Your task to perform on an android device: Open settings Image 0: 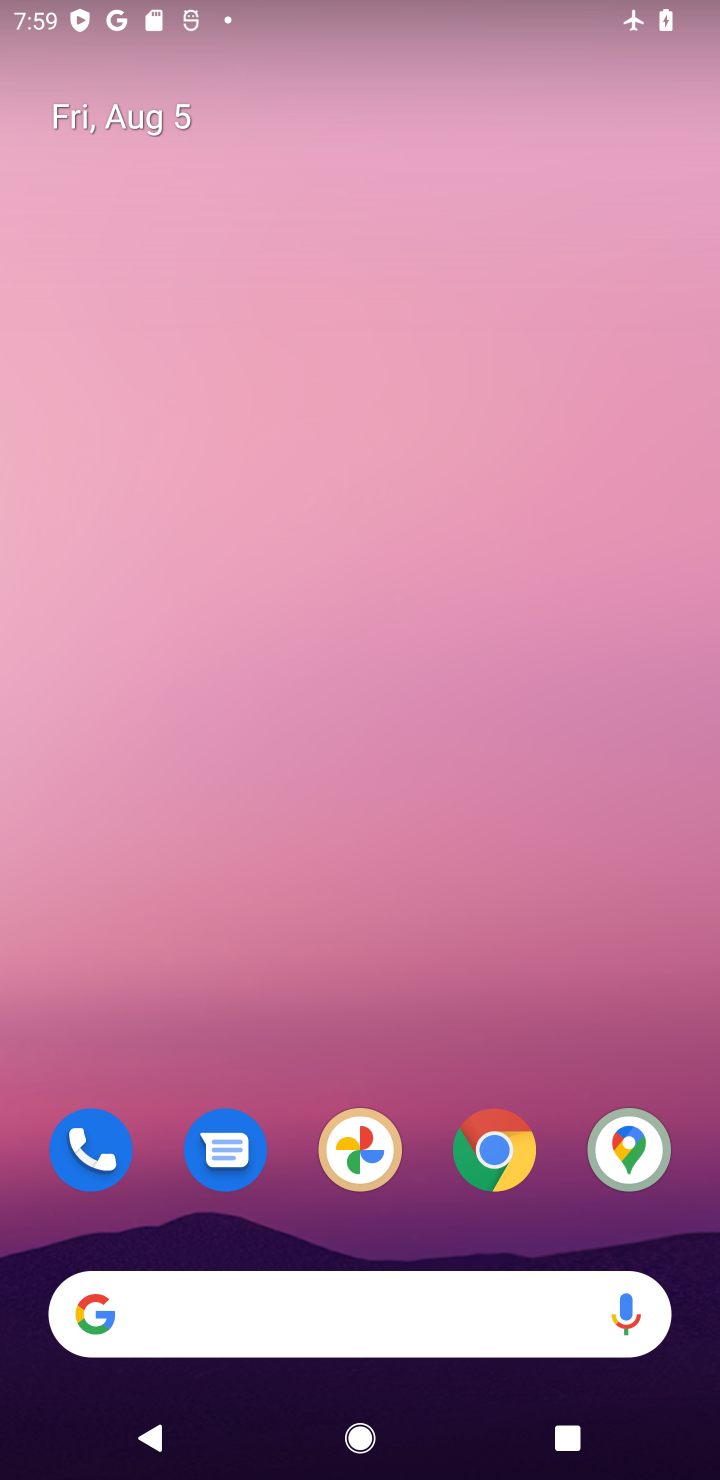
Step 0: drag from (494, 949) to (499, 150)
Your task to perform on an android device: Open settings Image 1: 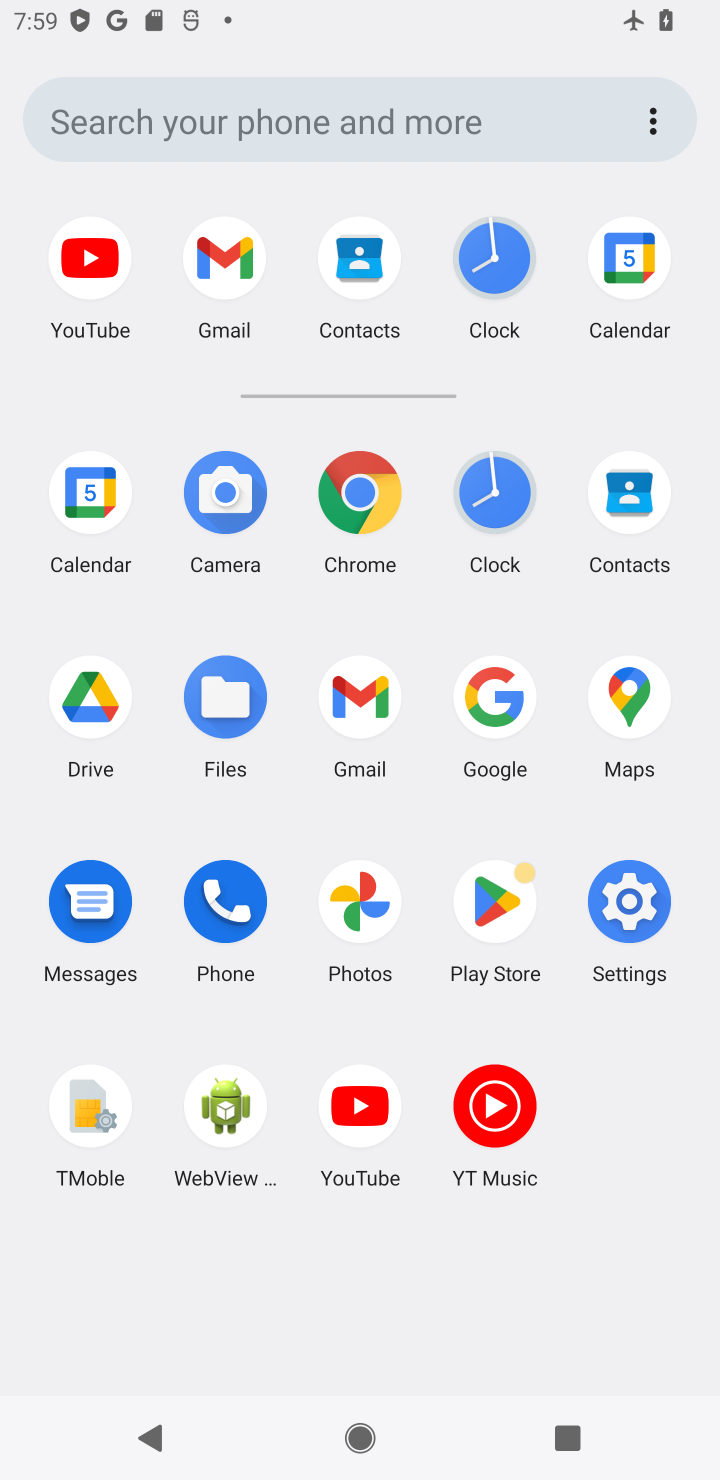
Step 1: click (619, 903)
Your task to perform on an android device: Open settings Image 2: 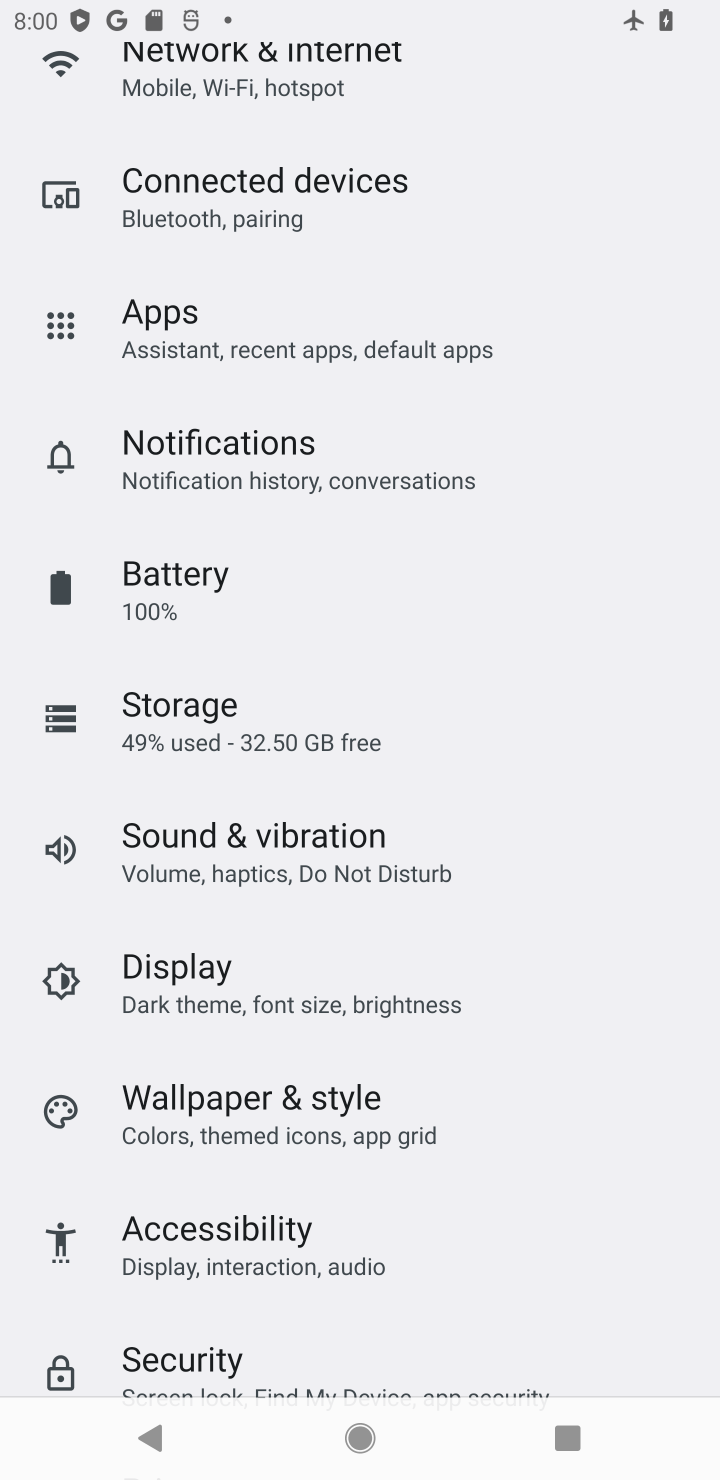
Step 2: task complete